Your task to perform on an android device: Go to Yahoo.com Image 0: 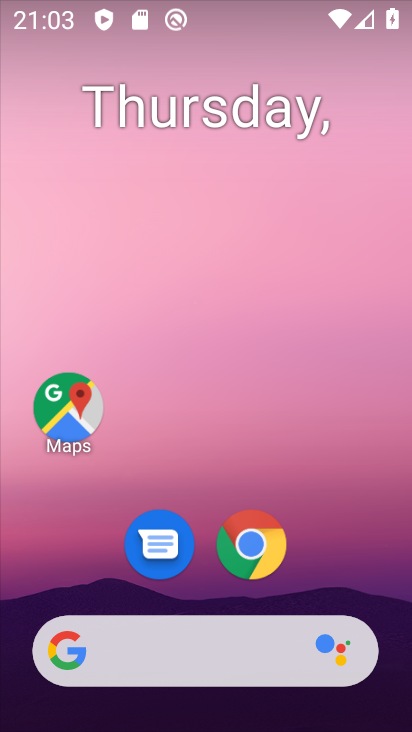
Step 0: click (212, 654)
Your task to perform on an android device: Go to Yahoo.com Image 1: 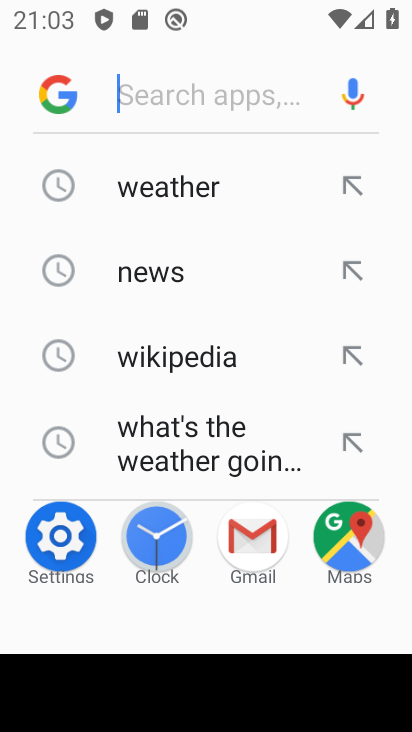
Step 1: type "yahoo.com"
Your task to perform on an android device: Go to Yahoo.com Image 2: 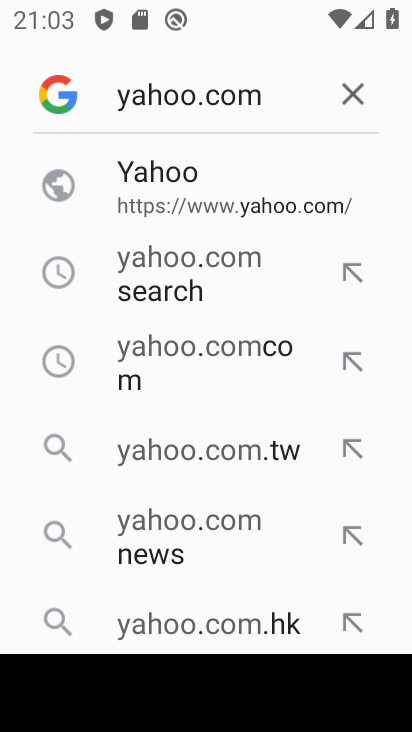
Step 2: click (299, 200)
Your task to perform on an android device: Go to Yahoo.com Image 3: 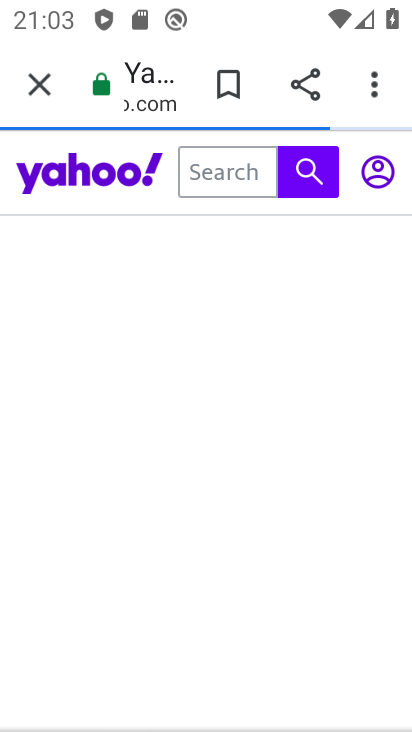
Step 3: task complete